Your task to perform on an android device: Open the Play Movies app and select the watchlist tab. Image 0: 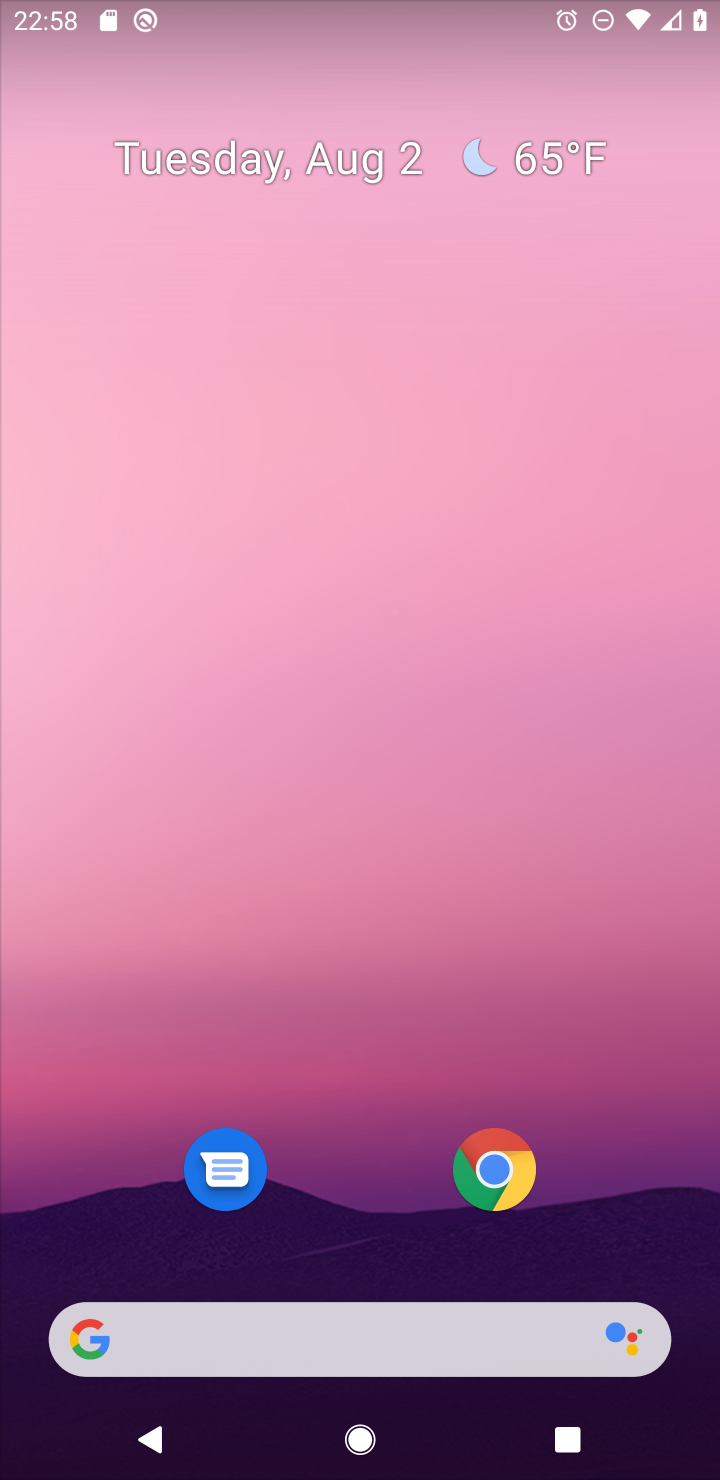
Step 0: drag from (365, 887) to (378, 410)
Your task to perform on an android device: Open the Play Movies app and select the watchlist tab. Image 1: 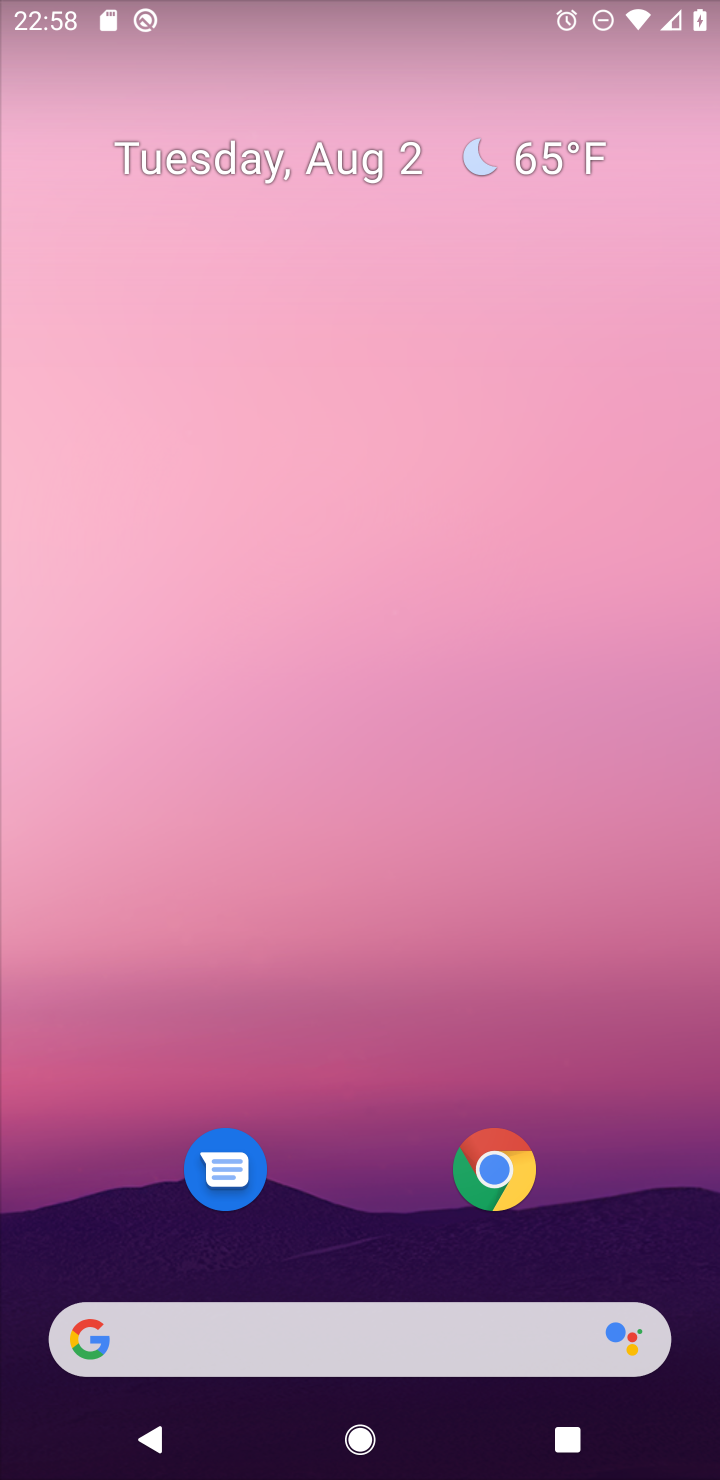
Step 1: drag from (384, 940) to (358, 68)
Your task to perform on an android device: Open the Play Movies app and select the watchlist tab. Image 2: 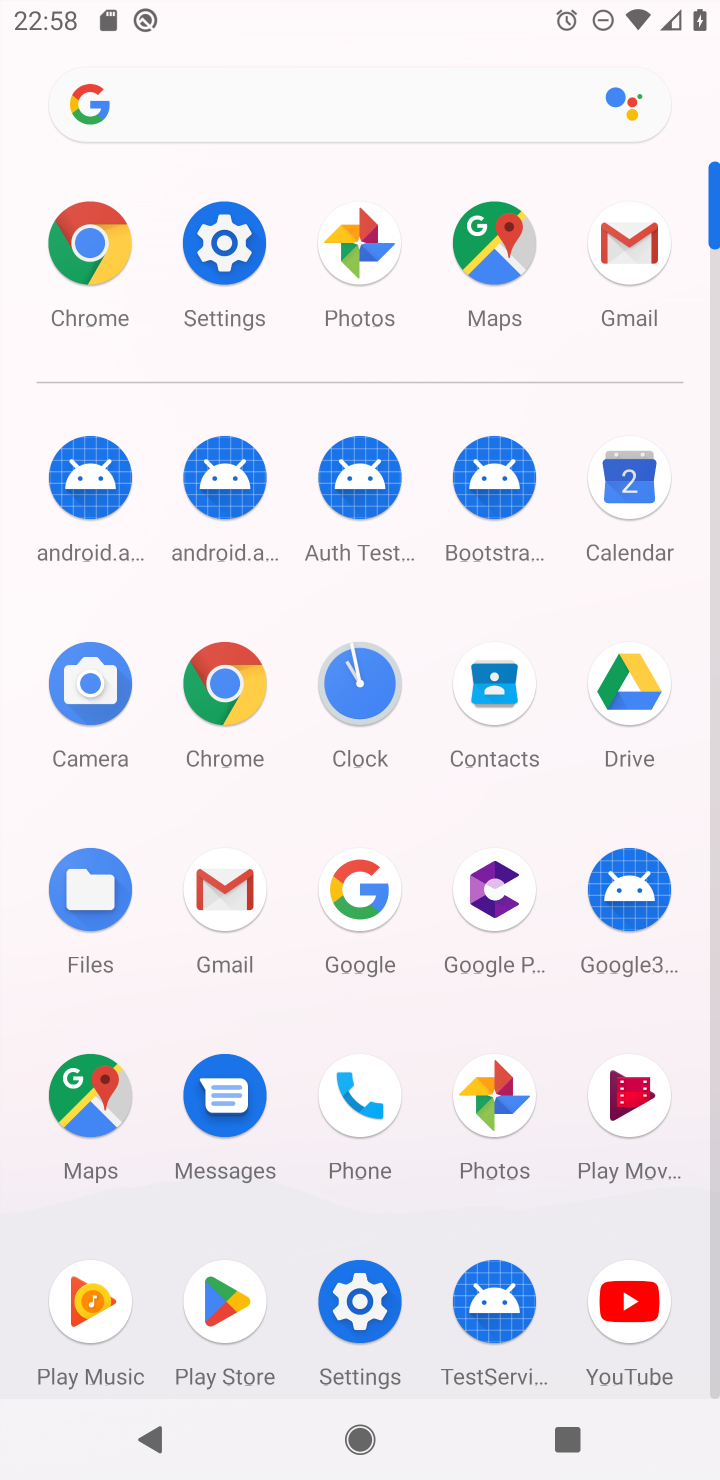
Step 2: click (623, 1118)
Your task to perform on an android device: Open the Play Movies app and select the watchlist tab. Image 3: 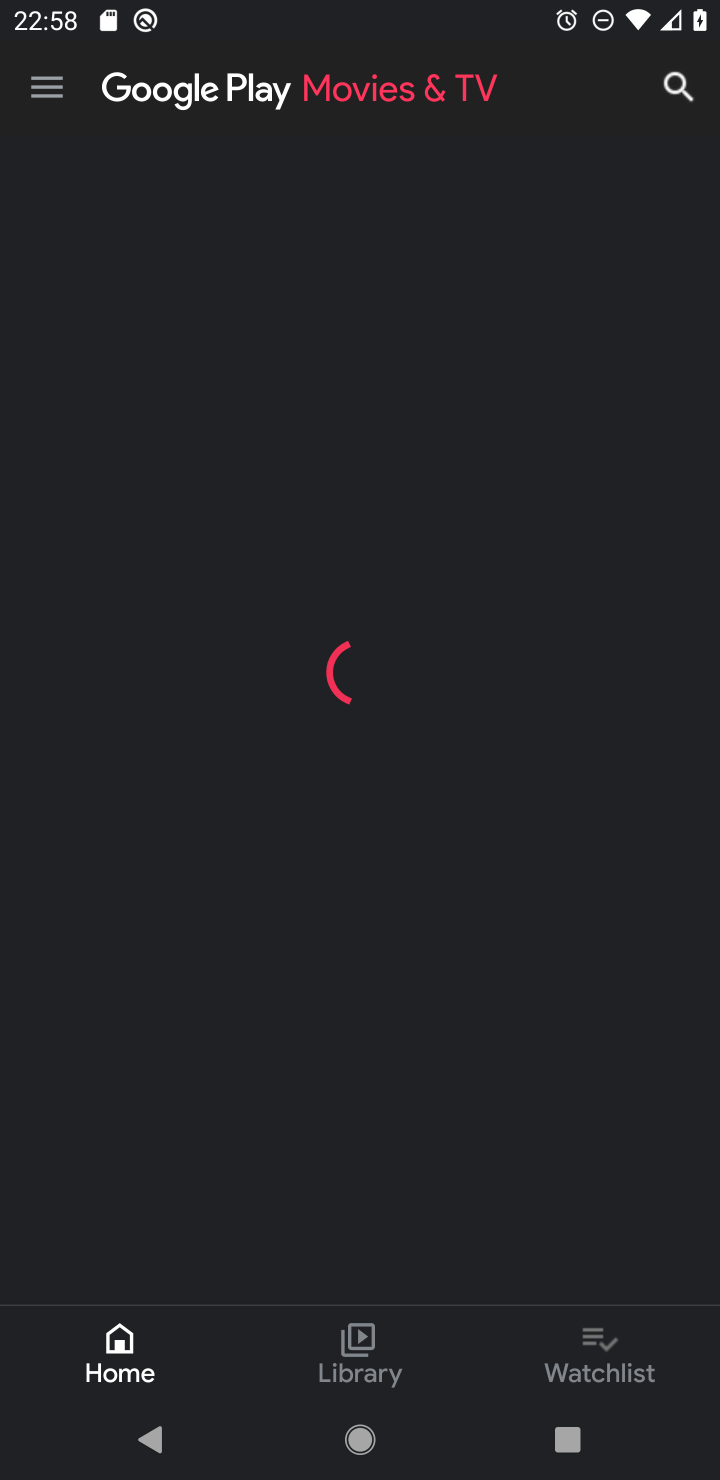
Step 3: click (610, 1381)
Your task to perform on an android device: Open the Play Movies app and select the watchlist tab. Image 4: 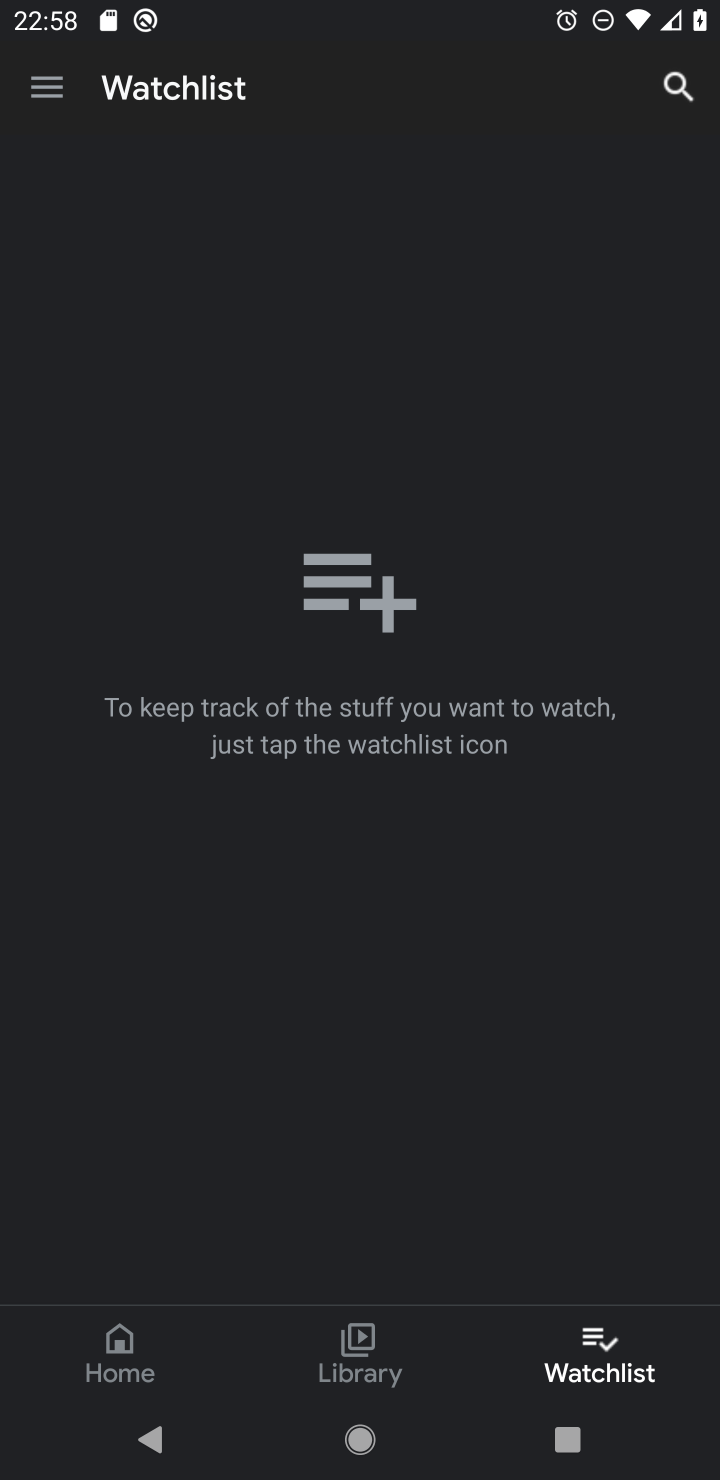
Step 4: task complete